Your task to perform on an android device: Go to eBay Image 0: 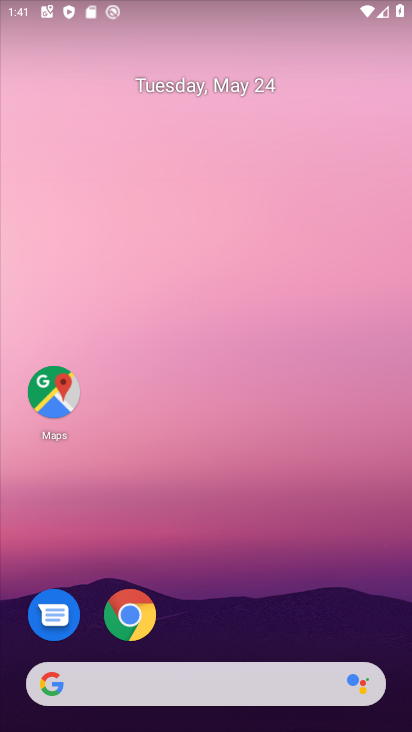
Step 0: press home button
Your task to perform on an android device: Go to eBay Image 1: 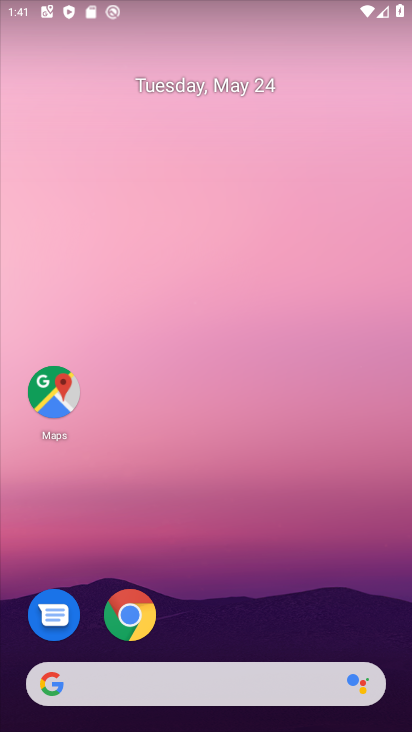
Step 1: click (129, 608)
Your task to perform on an android device: Go to eBay Image 2: 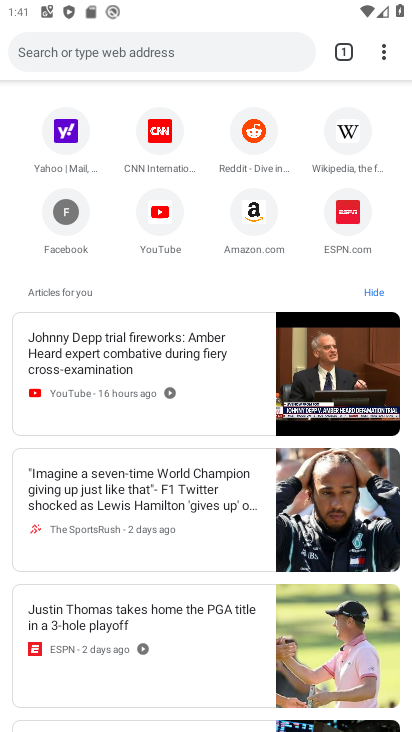
Step 2: click (93, 46)
Your task to perform on an android device: Go to eBay Image 3: 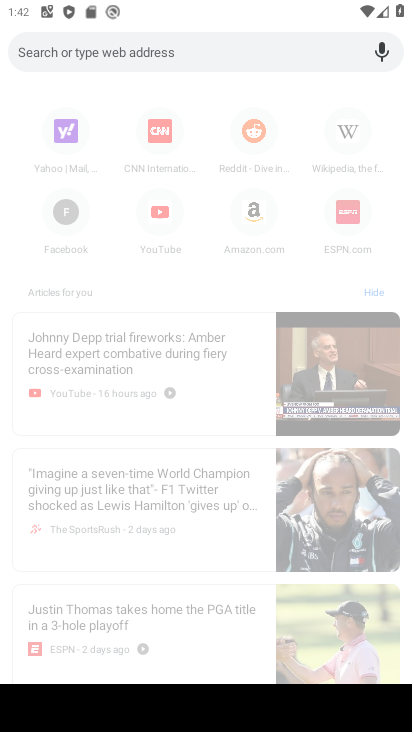
Step 3: type "ebay"
Your task to perform on an android device: Go to eBay Image 4: 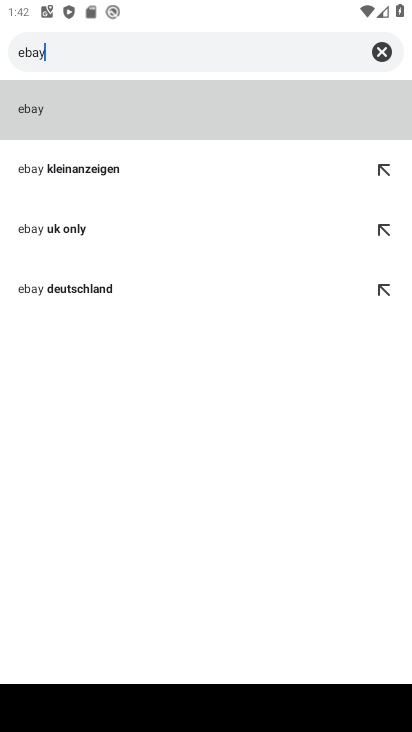
Step 4: click (67, 107)
Your task to perform on an android device: Go to eBay Image 5: 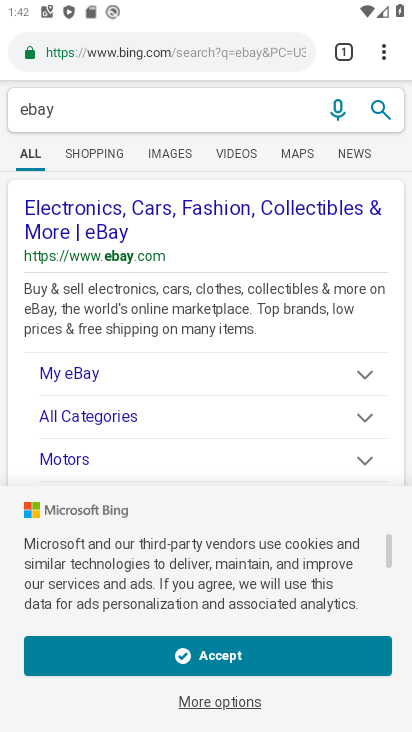
Step 5: click (99, 219)
Your task to perform on an android device: Go to eBay Image 6: 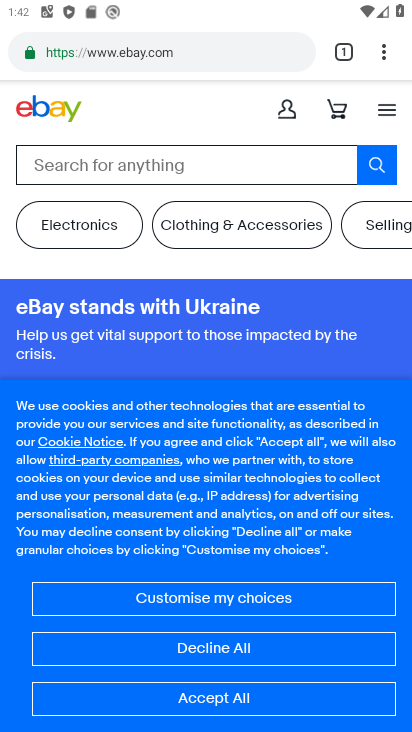
Step 6: drag from (257, 587) to (293, 215)
Your task to perform on an android device: Go to eBay Image 7: 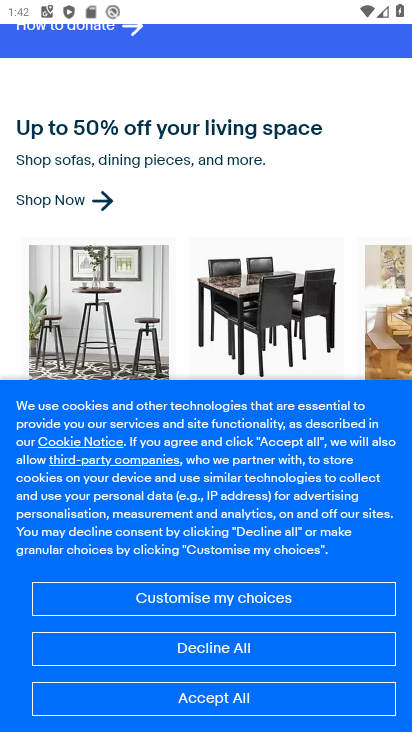
Step 7: click (225, 695)
Your task to perform on an android device: Go to eBay Image 8: 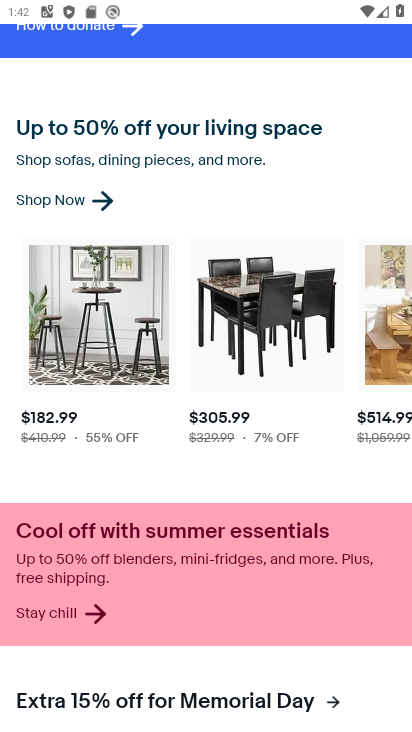
Step 8: task complete